Your task to perform on an android device: add a contact in the contacts app Image 0: 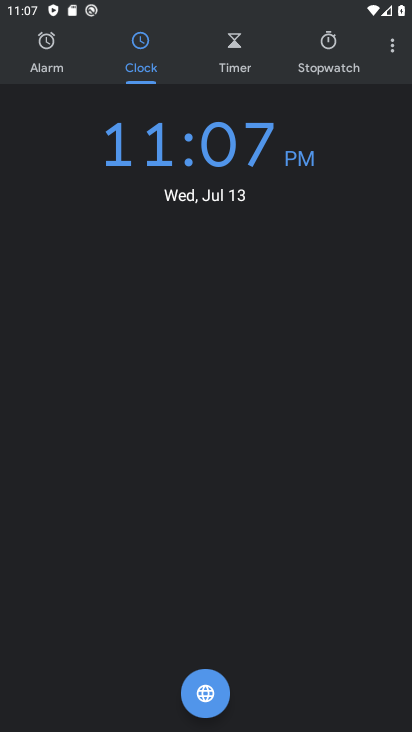
Step 0: press home button
Your task to perform on an android device: add a contact in the contacts app Image 1: 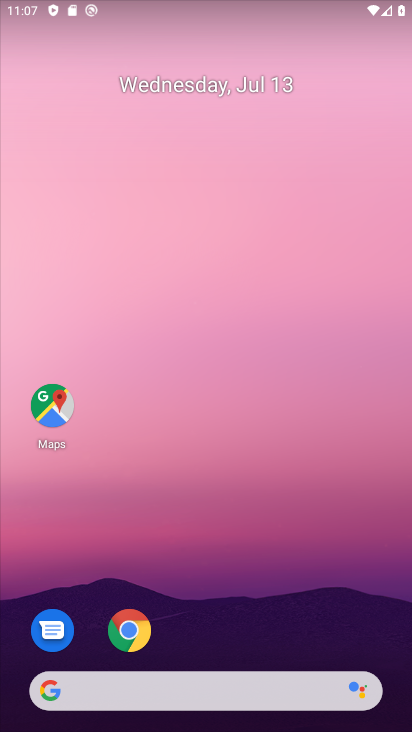
Step 1: drag from (337, 624) to (361, 217)
Your task to perform on an android device: add a contact in the contacts app Image 2: 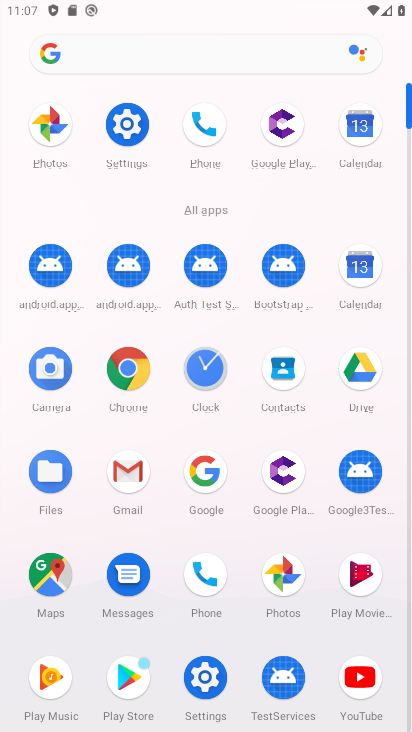
Step 2: click (285, 377)
Your task to perform on an android device: add a contact in the contacts app Image 3: 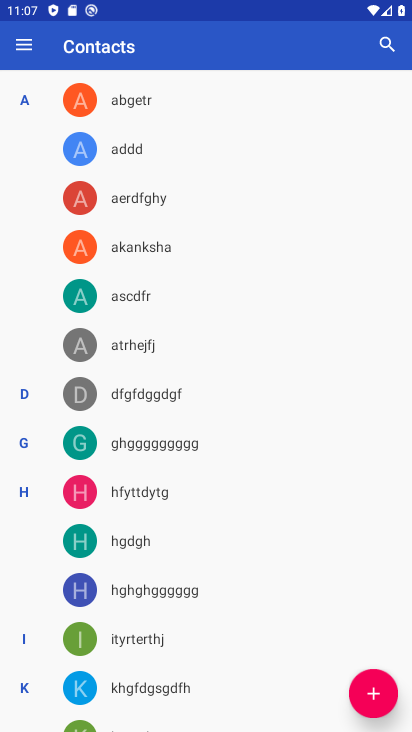
Step 3: click (370, 698)
Your task to perform on an android device: add a contact in the contacts app Image 4: 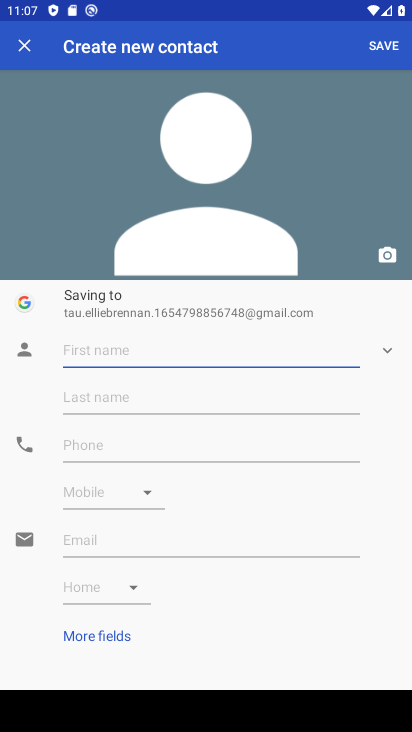
Step 4: type "me"
Your task to perform on an android device: add a contact in the contacts app Image 5: 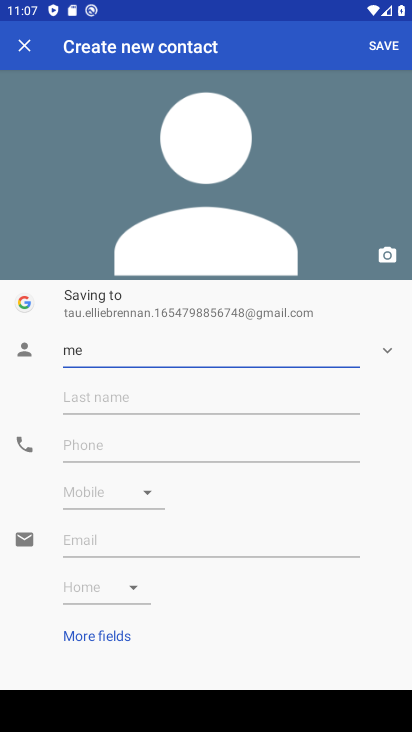
Step 5: click (151, 447)
Your task to perform on an android device: add a contact in the contacts app Image 6: 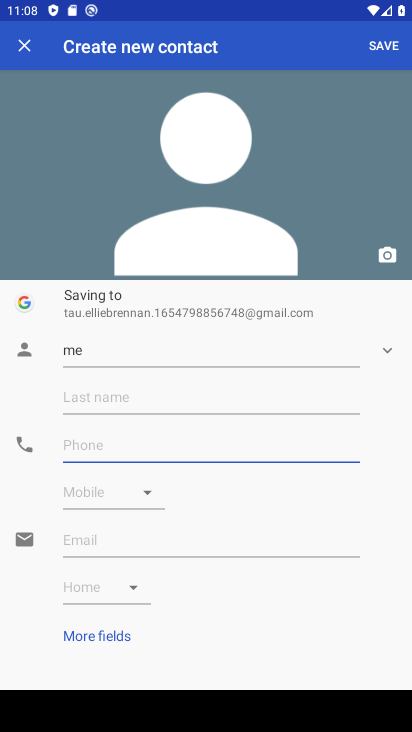
Step 6: type "12345678890"
Your task to perform on an android device: add a contact in the contacts app Image 7: 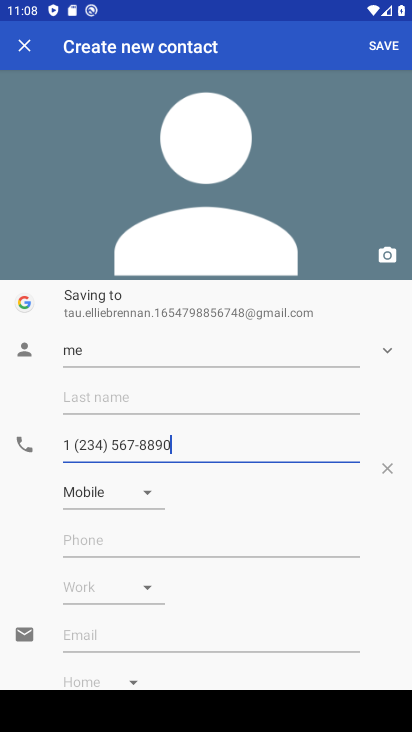
Step 7: click (385, 40)
Your task to perform on an android device: add a contact in the contacts app Image 8: 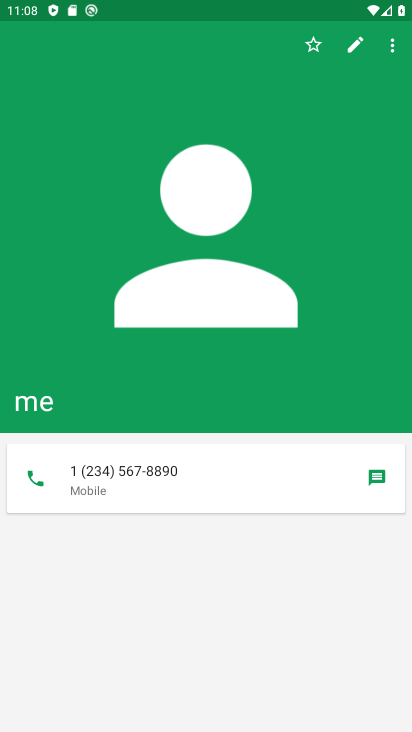
Step 8: task complete